Your task to perform on an android device: Search for "panasonic triple a" on bestbuy.com, select the first entry, add it to the cart, then select checkout. Image 0: 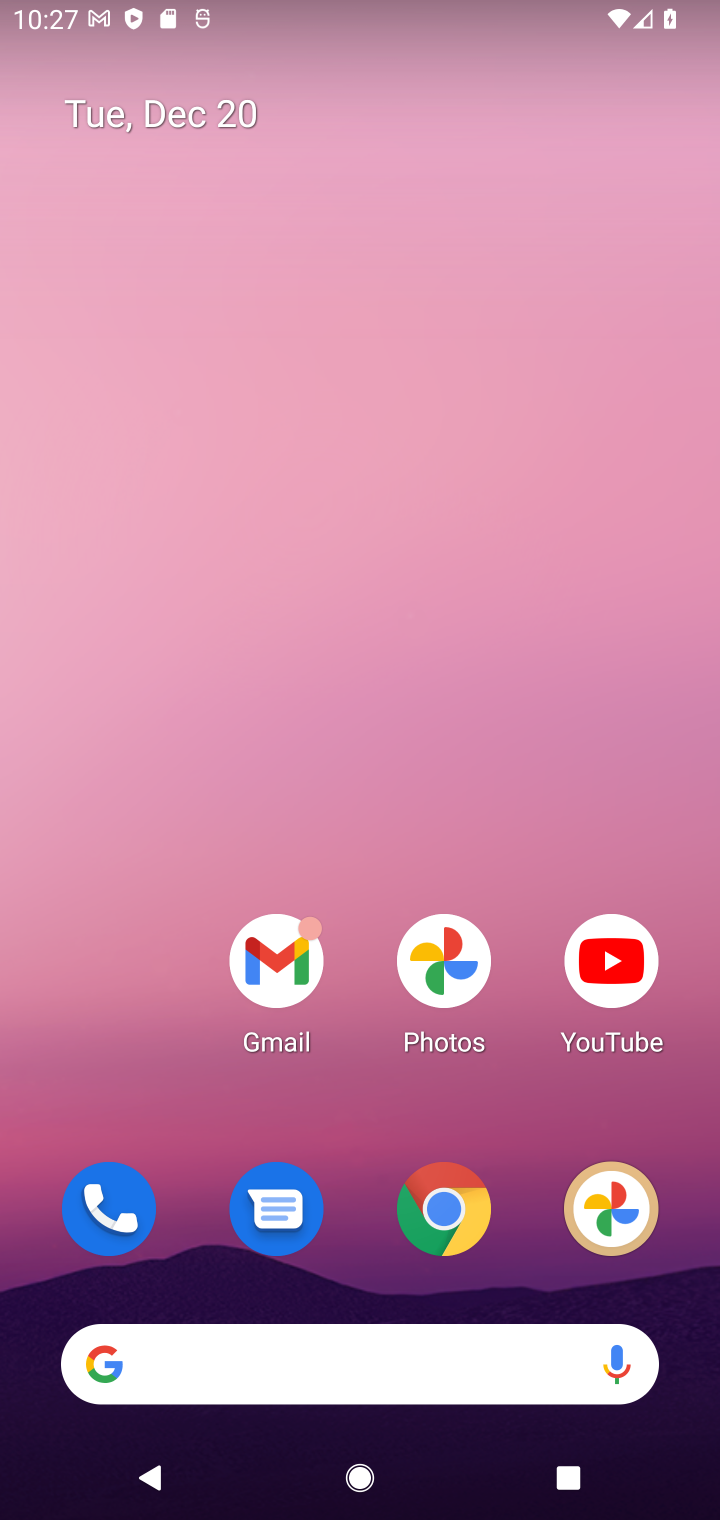
Step 0: click (435, 1215)
Your task to perform on an android device: Search for "panasonic triple a" on bestbuy.com, select the first entry, add it to the cart, then select checkout. Image 1: 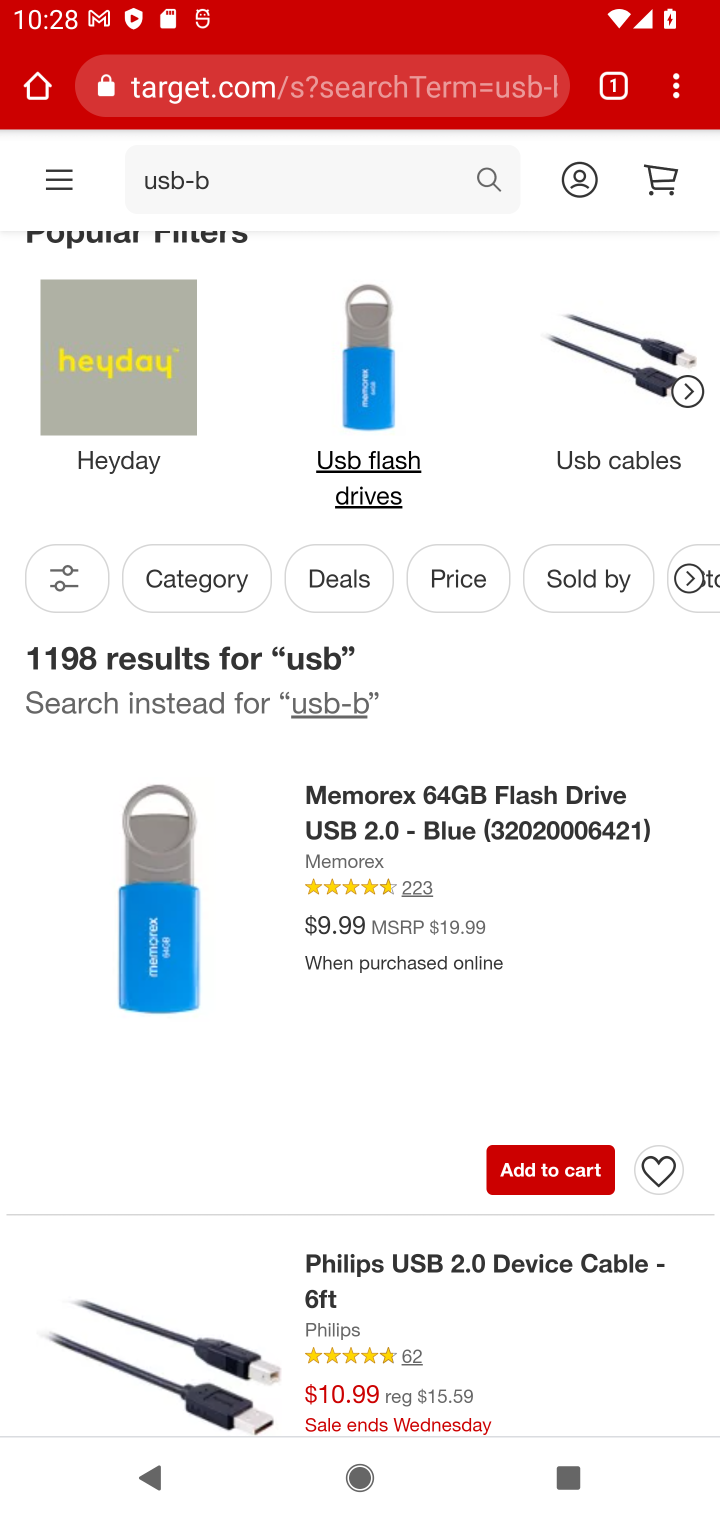
Step 1: click (264, 86)
Your task to perform on an android device: Search for "panasonic triple a" on bestbuy.com, select the first entry, add it to the cart, then select checkout. Image 2: 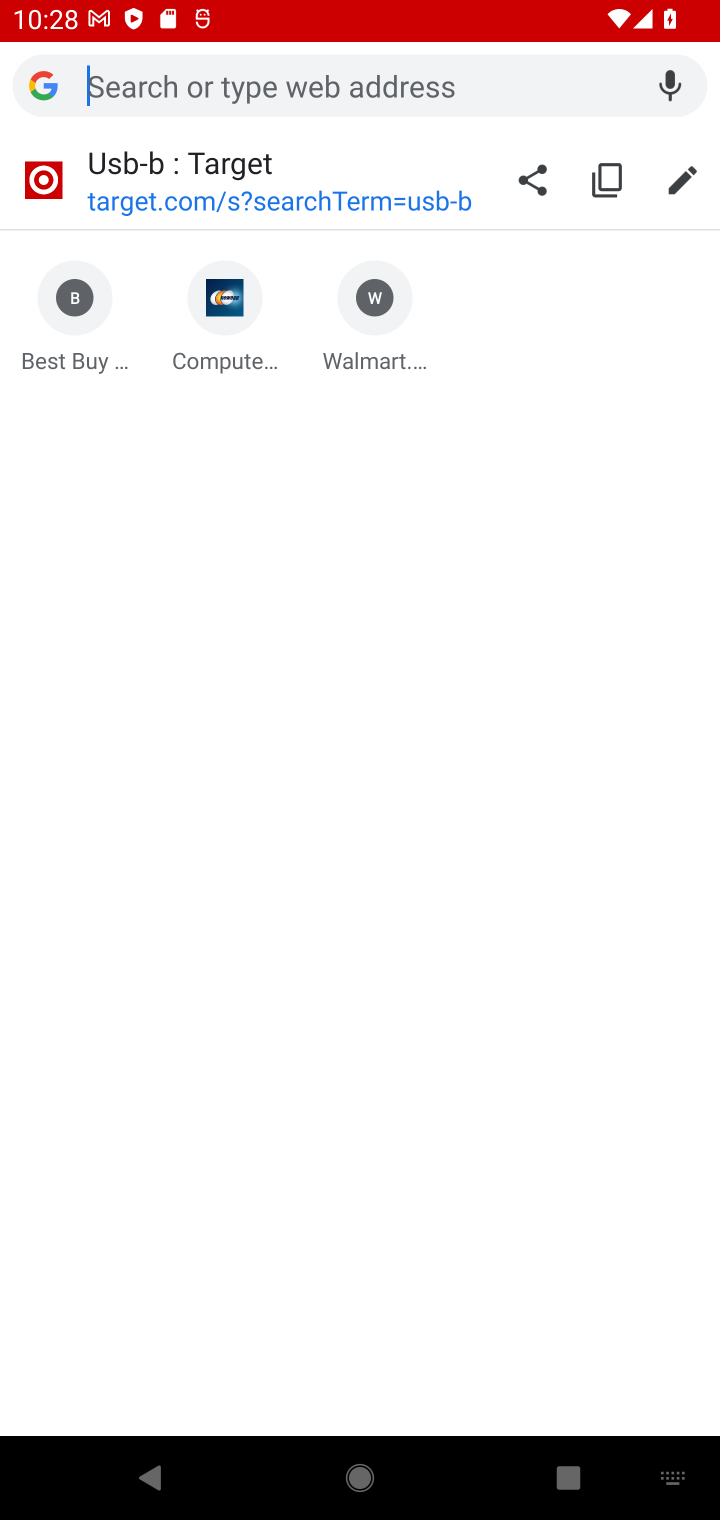
Step 2: click (78, 355)
Your task to perform on an android device: Search for "panasonic triple a" on bestbuy.com, select the first entry, add it to the cart, then select checkout. Image 3: 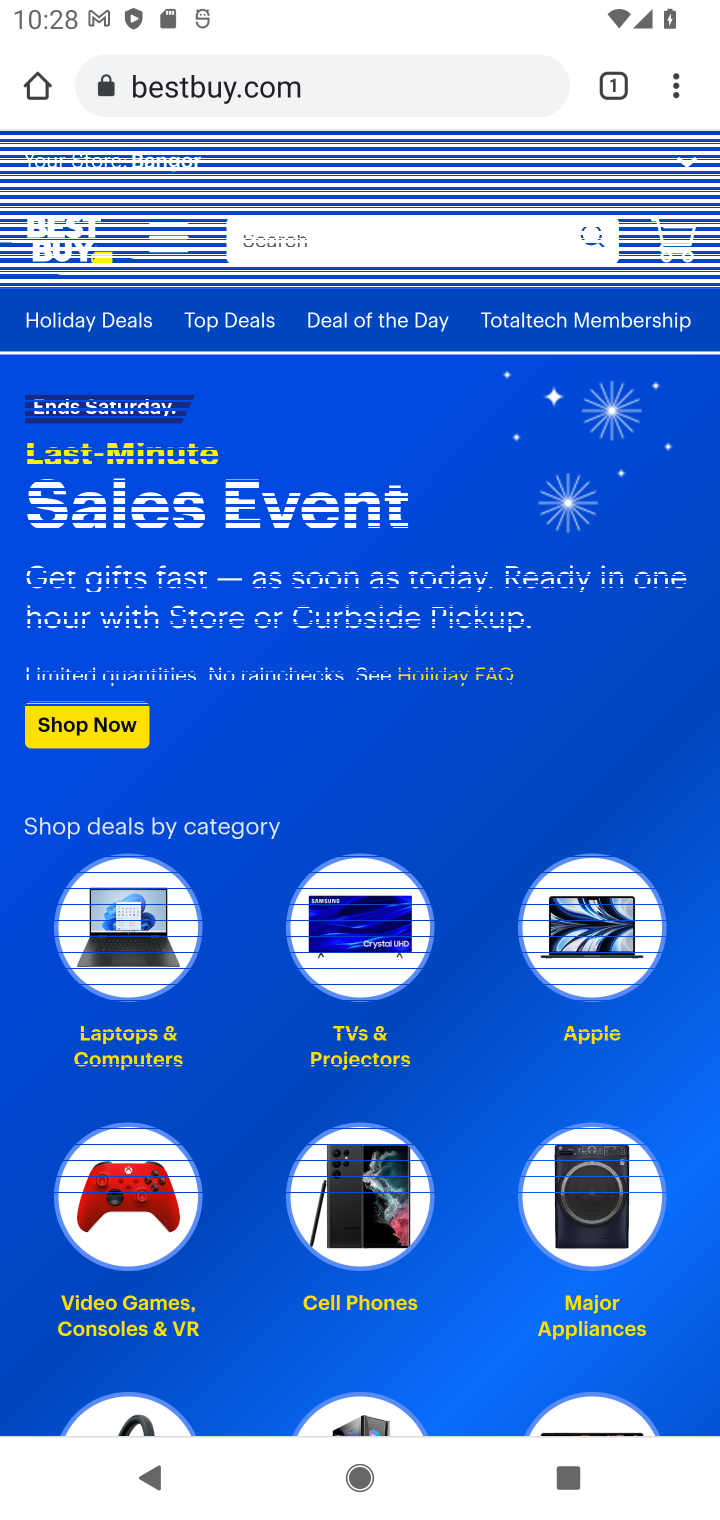
Step 3: click (302, 239)
Your task to perform on an android device: Search for "panasonic triple a" on bestbuy.com, select the first entry, add it to the cart, then select checkout. Image 4: 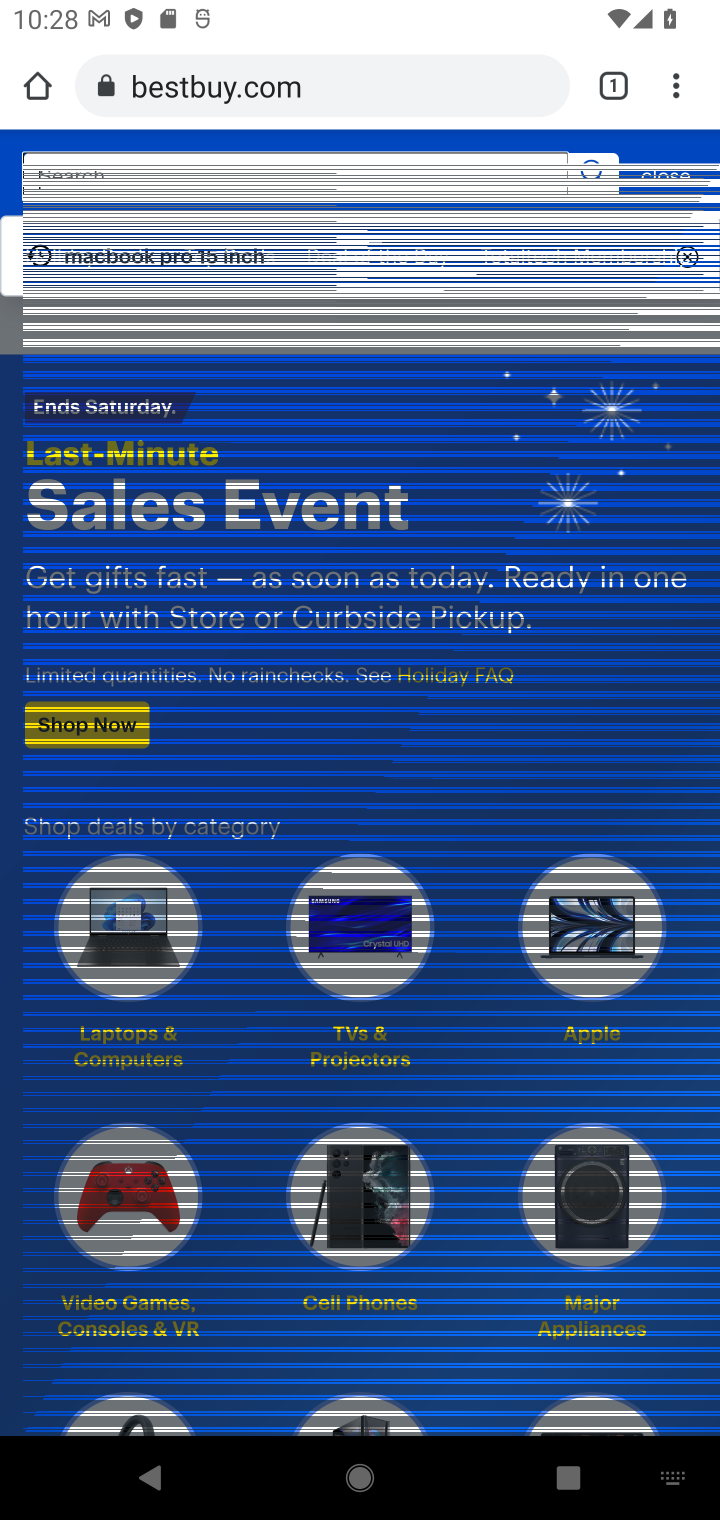
Step 4: type "panasonic triple a"
Your task to perform on an android device: Search for "panasonic triple a" on bestbuy.com, select the first entry, add it to the cart, then select checkout. Image 5: 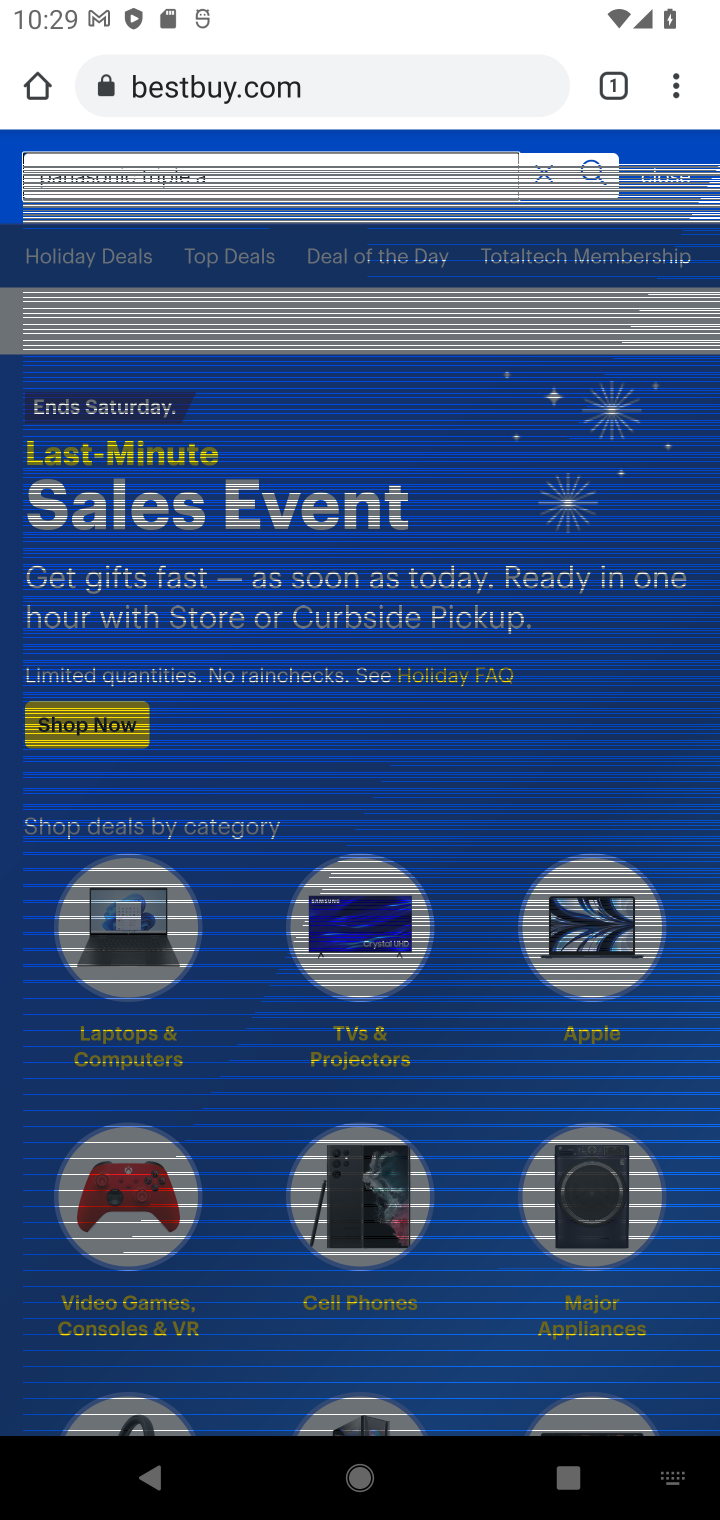
Step 5: click (593, 167)
Your task to perform on an android device: Search for "panasonic triple a" on bestbuy.com, select the first entry, add it to the cart, then select checkout. Image 6: 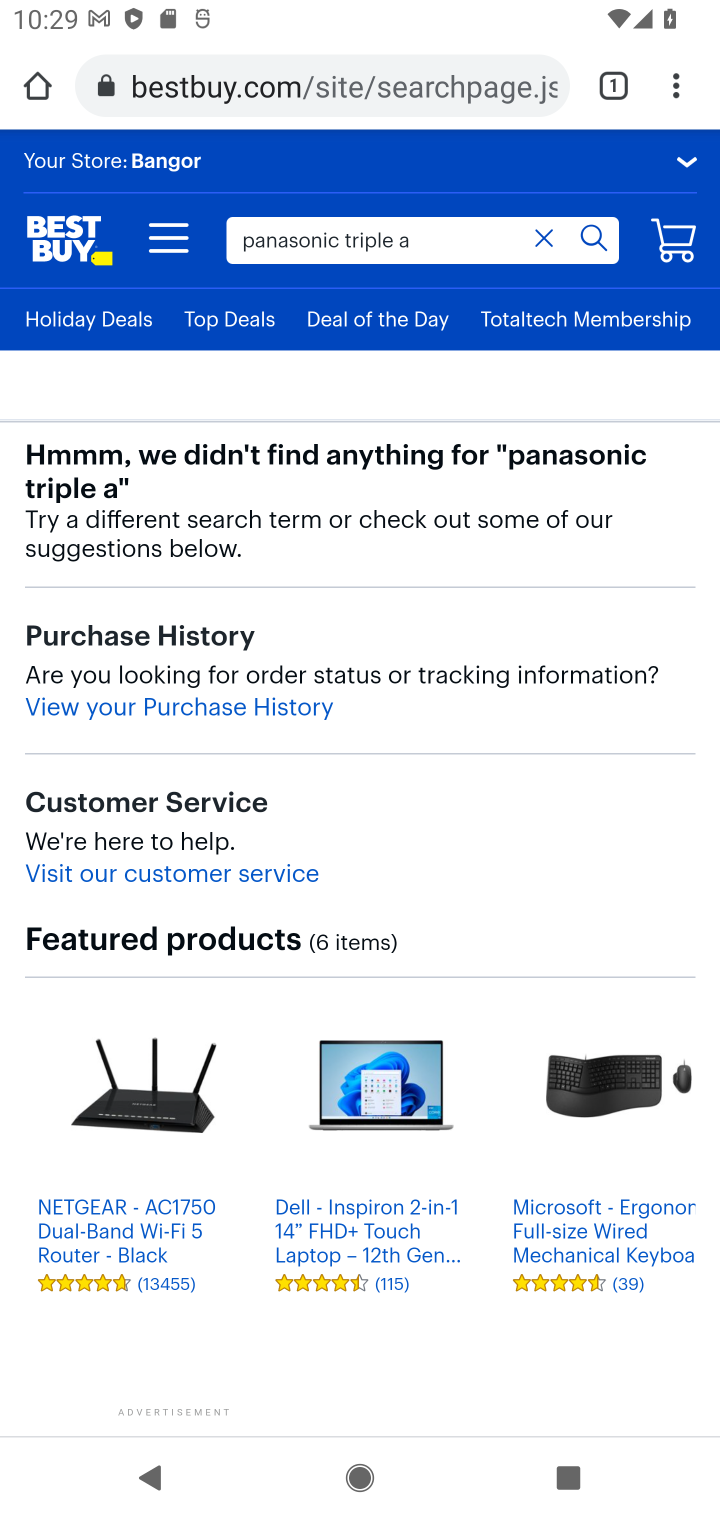
Step 6: task complete